Your task to perform on an android device: change the clock display to analog Image 0: 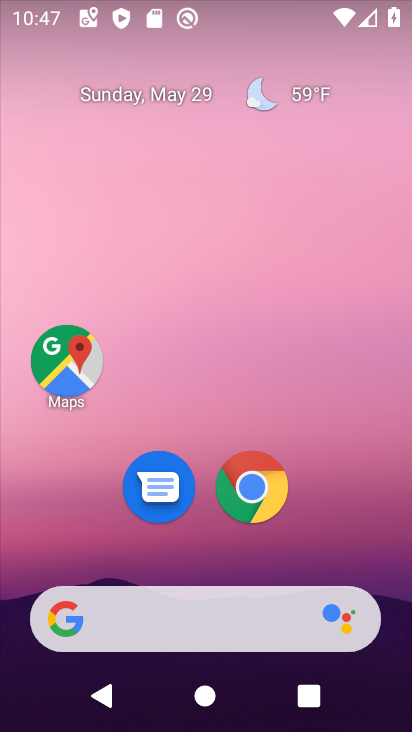
Step 0: drag from (394, 685) to (344, 171)
Your task to perform on an android device: change the clock display to analog Image 1: 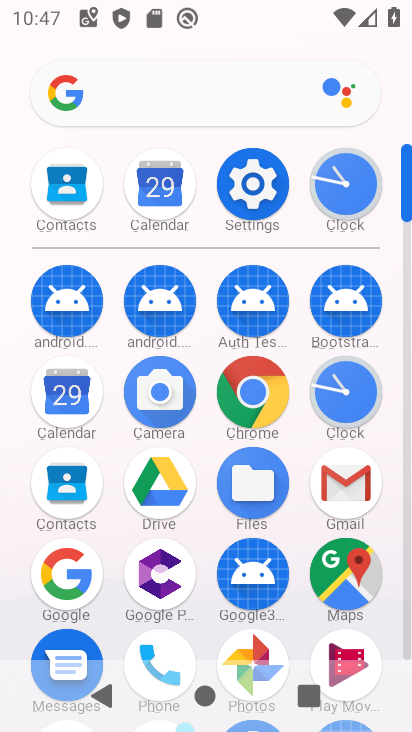
Step 1: click (248, 196)
Your task to perform on an android device: change the clock display to analog Image 2: 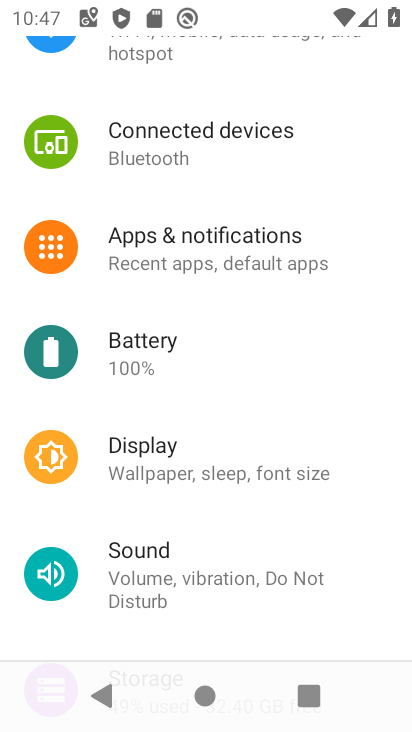
Step 2: press back button
Your task to perform on an android device: change the clock display to analog Image 3: 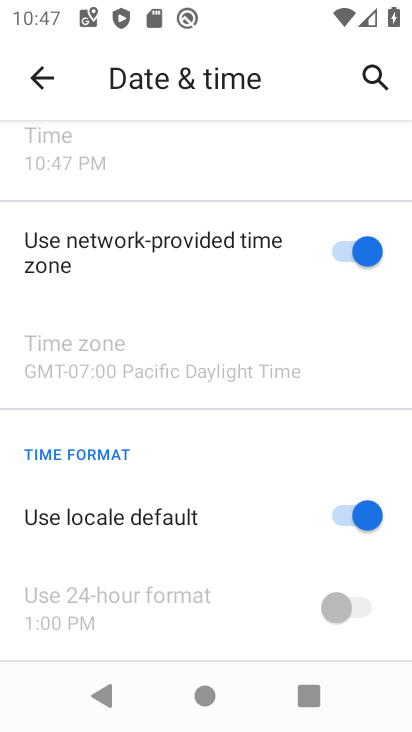
Step 3: press back button
Your task to perform on an android device: change the clock display to analog Image 4: 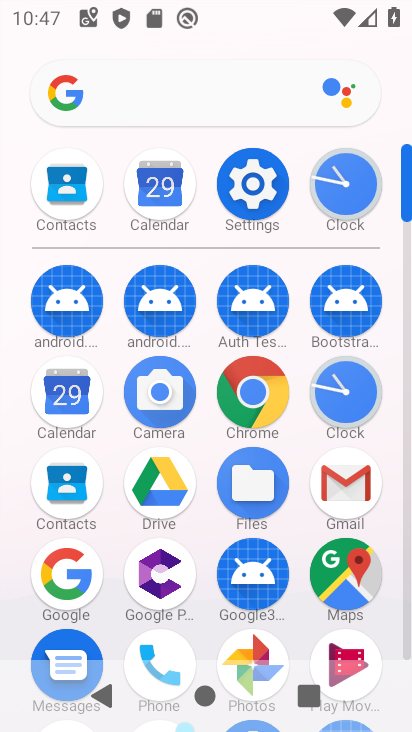
Step 4: click (353, 385)
Your task to perform on an android device: change the clock display to analog Image 5: 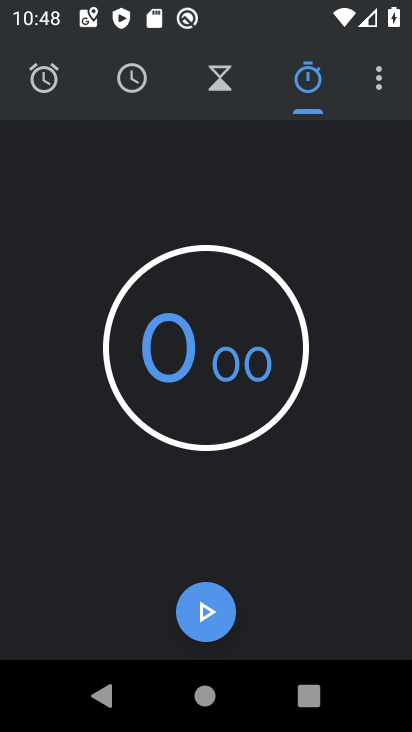
Step 5: click (379, 79)
Your task to perform on an android device: change the clock display to analog Image 6: 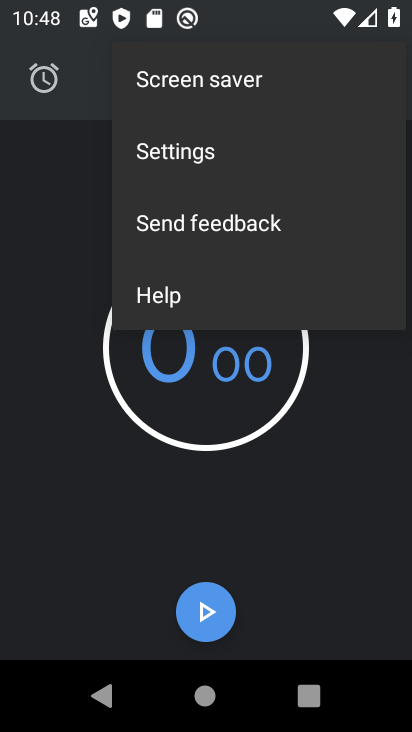
Step 6: click (192, 157)
Your task to perform on an android device: change the clock display to analog Image 7: 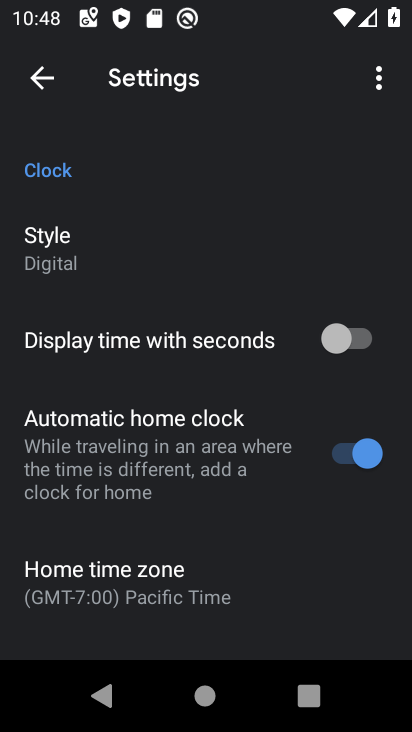
Step 7: drag from (258, 596) to (237, 207)
Your task to perform on an android device: change the clock display to analog Image 8: 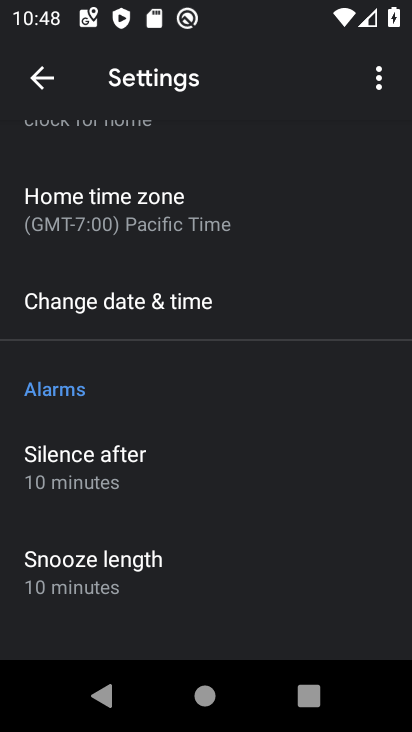
Step 8: drag from (231, 179) to (263, 556)
Your task to perform on an android device: change the clock display to analog Image 9: 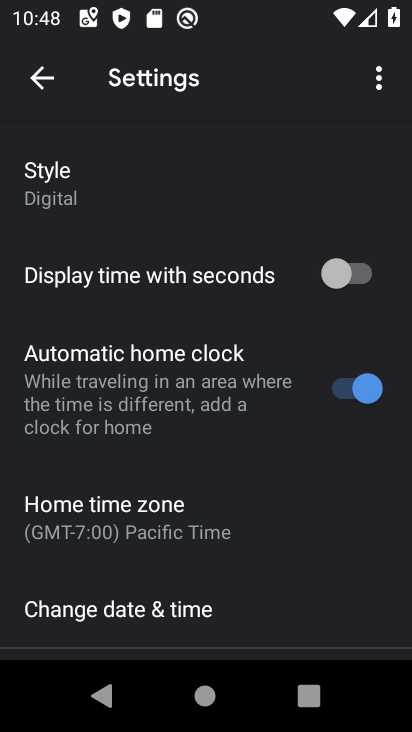
Step 9: click (58, 173)
Your task to perform on an android device: change the clock display to analog Image 10: 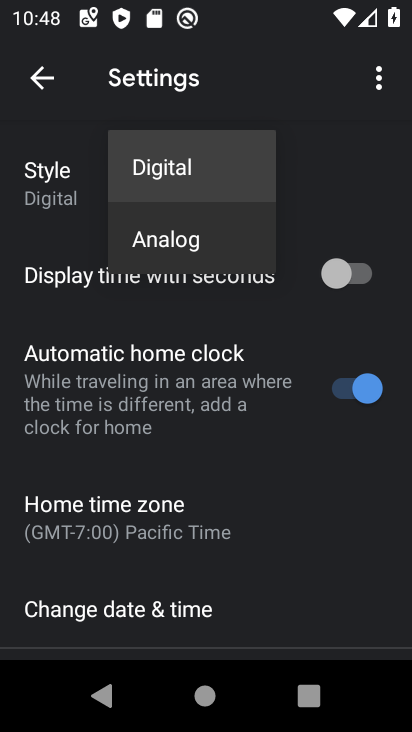
Step 10: click (159, 240)
Your task to perform on an android device: change the clock display to analog Image 11: 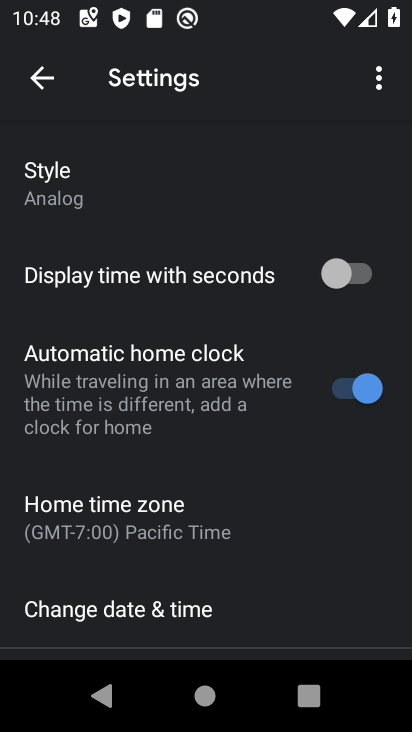
Step 11: task complete